Your task to perform on an android device: check battery use Image 0: 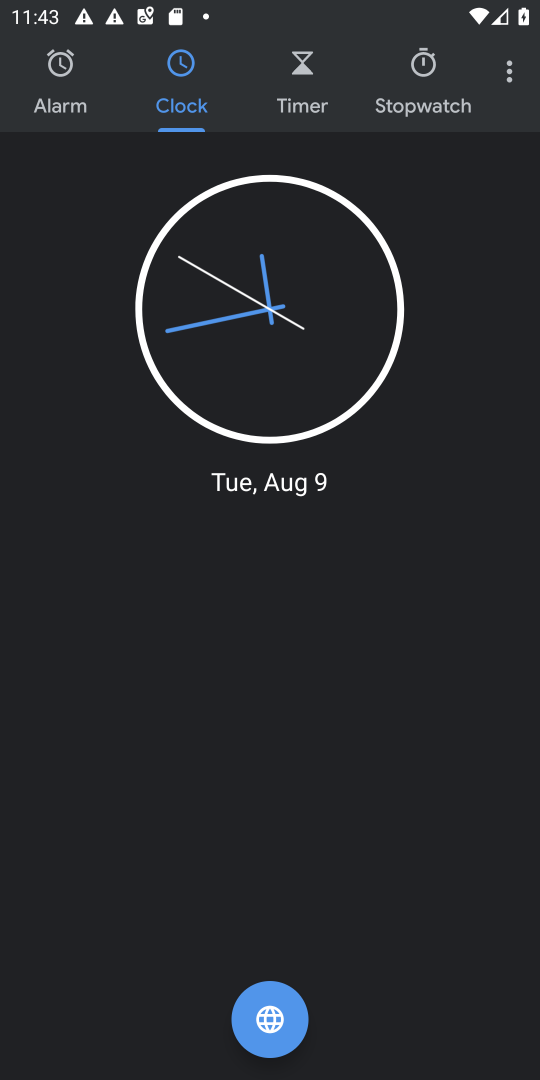
Step 0: press home button
Your task to perform on an android device: check battery use Image 1: 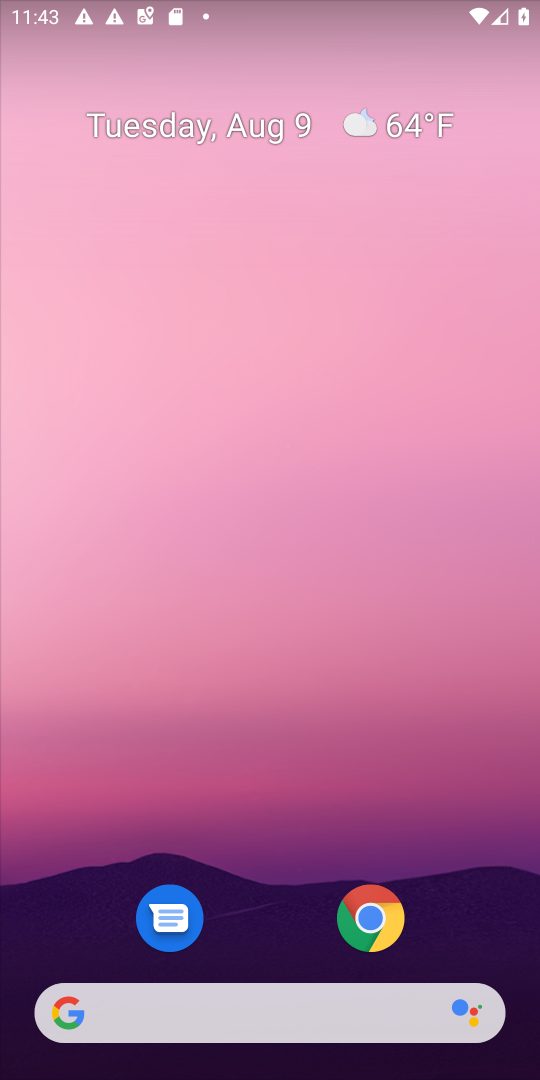
Step 1: drag from (258, 887) to (345, 285)
Your task to perform on an android device: check battery use Image 2: 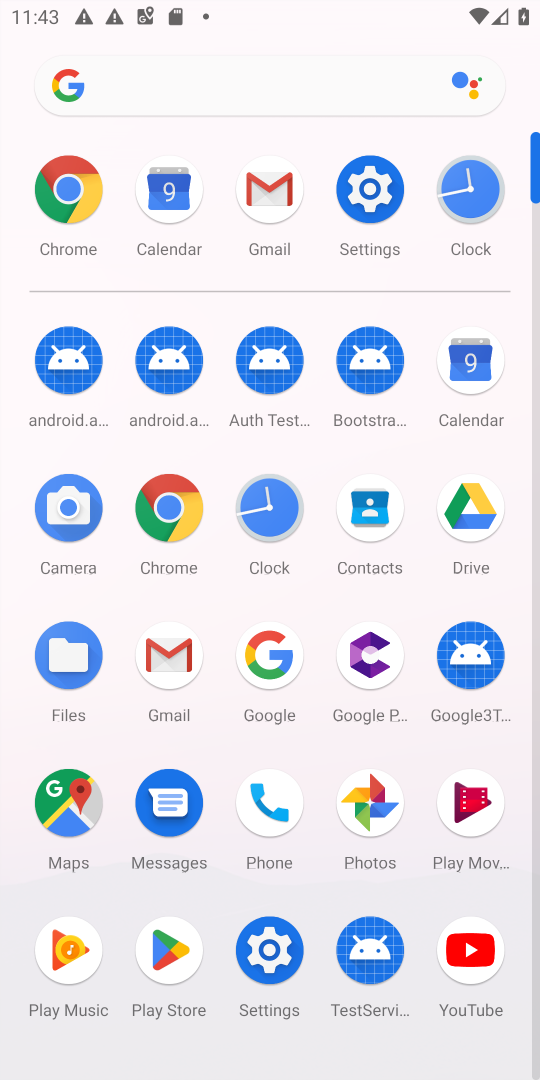
Step 2: click (271, 951)
Your task to perform on an android device: check battery use Image 3: 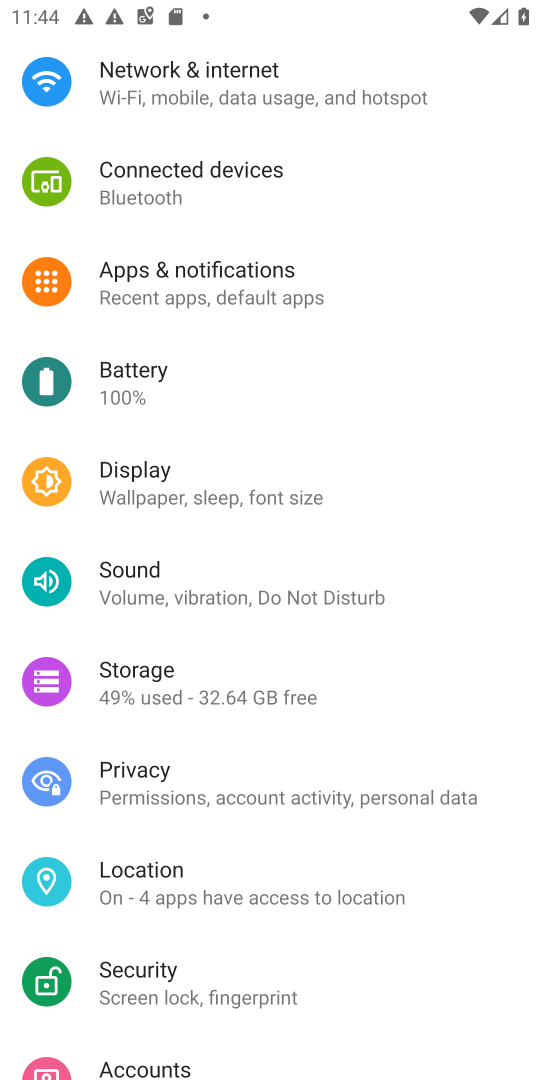
Step 3: click (132, 377)
Your task to perform on an android device: check battery use Image 4: 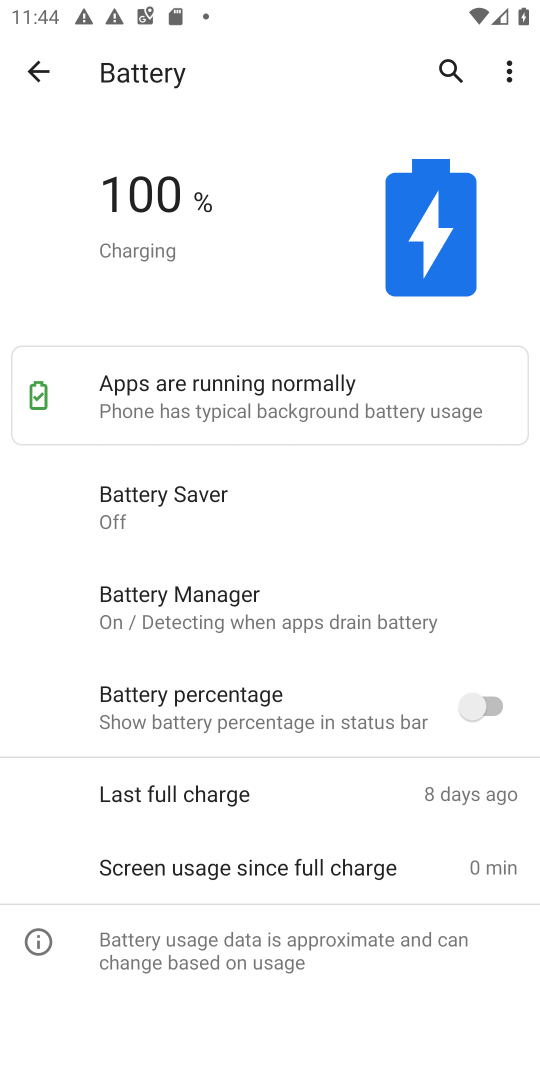
Step 4: click (512, 53)
Your task to perform on an android device: check battery use Image 5: 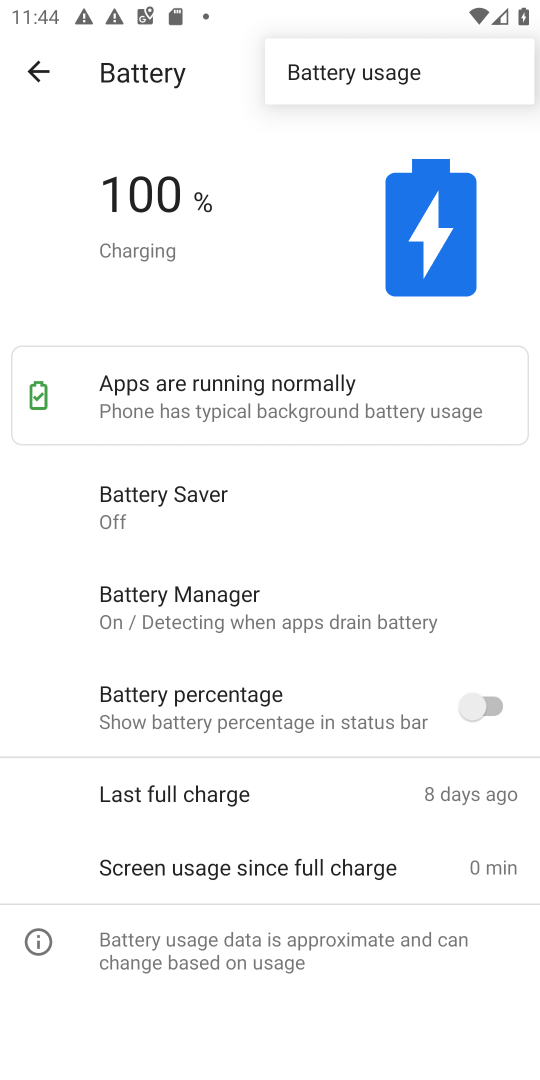
Step 5: click (374, 74)
Your task to perform on an android device: check battery use Image 6: 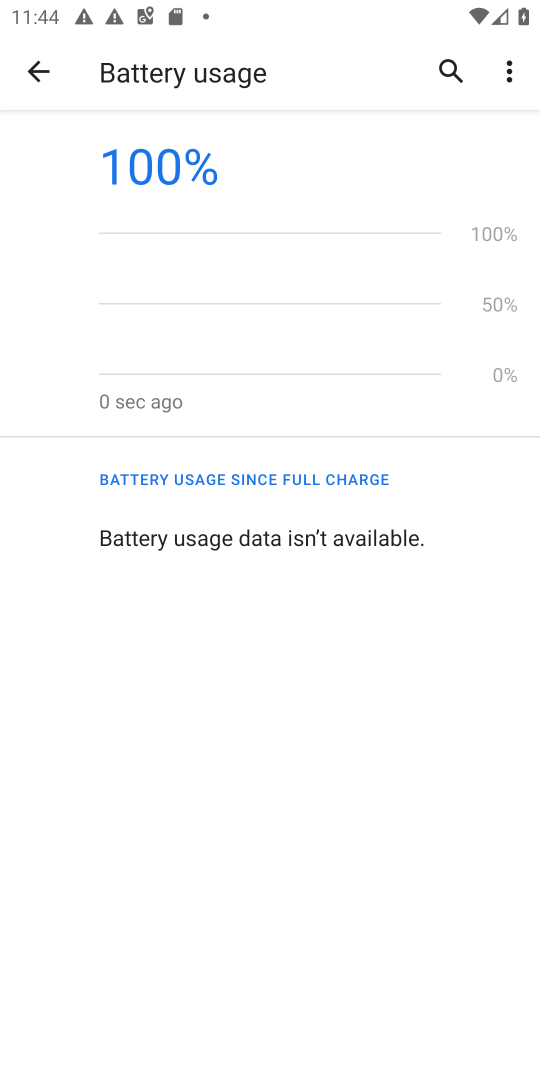
Step 6: task complete